Your task to perform on an android device: Go to privacy settings Image 0: 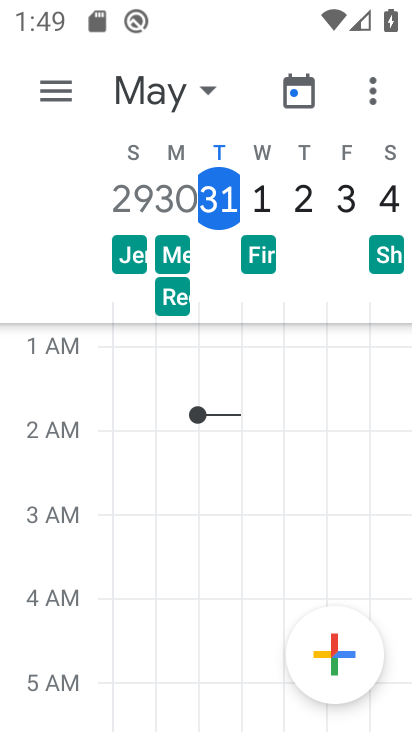
Step 0: press home button
Your task to perform on an android device: Go to privacy settings Image 1: 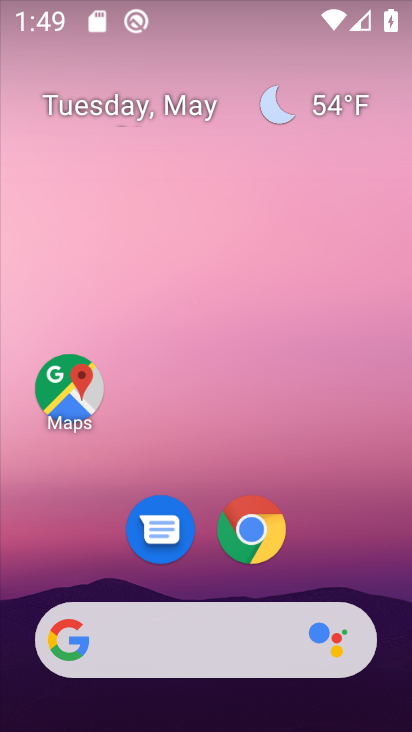
Step 1: drag from (310, 551) to (272, 246)
Your task to perform on an android device: Go to privacy settings Image 2: 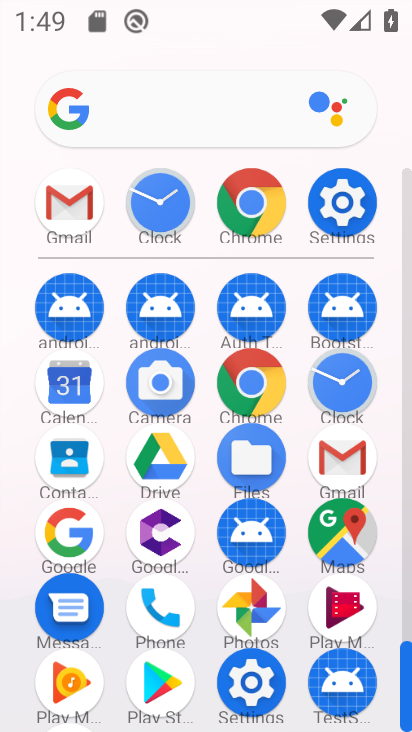
Step 2: click (334, 199)
Your task to perform on an android device: Go to privacy settings Image 3: 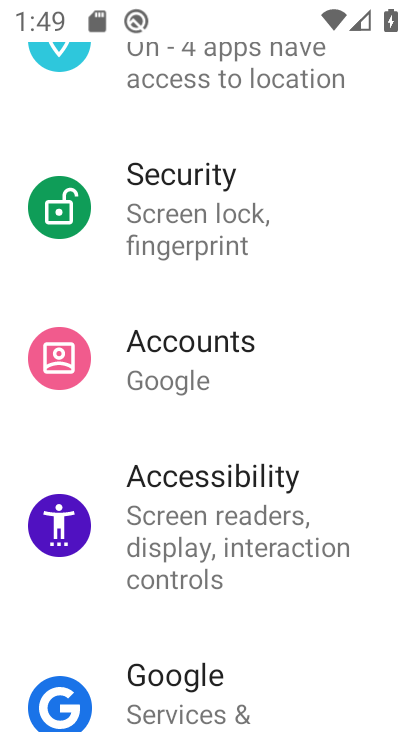
Step 3: drag from (191, 211) to (269, 597)
Your task to perform on an android device: Go to privacy settings Image 4: 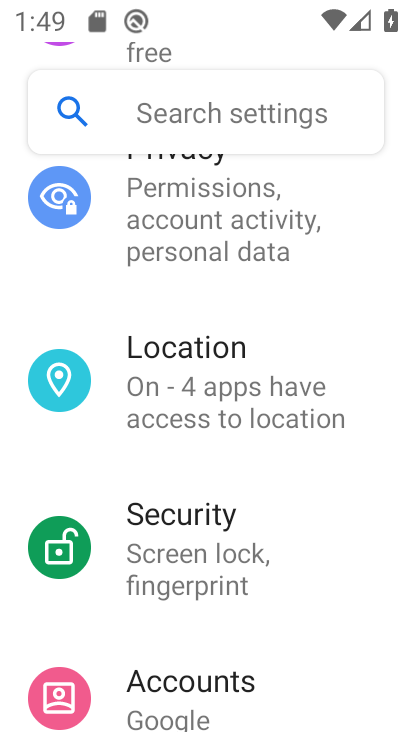
Step 4: drag from (228, 248) to (229, 491)
Your task to perform on an android device: Go to privacy settings Image 5: 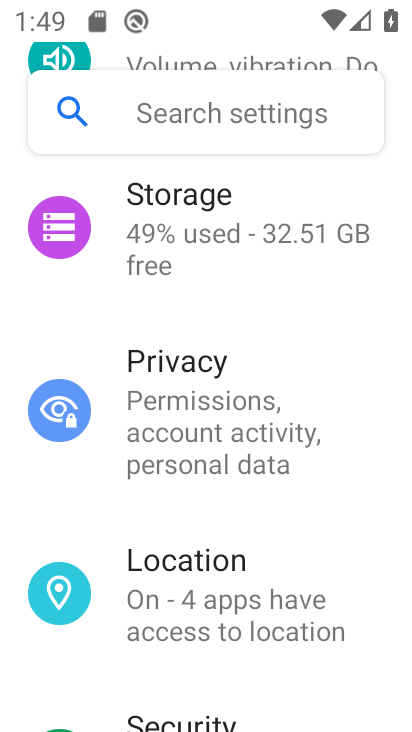
Step 5: click (221, 380)
Your task to perform on an android device: Go to privacy settings Image 6: 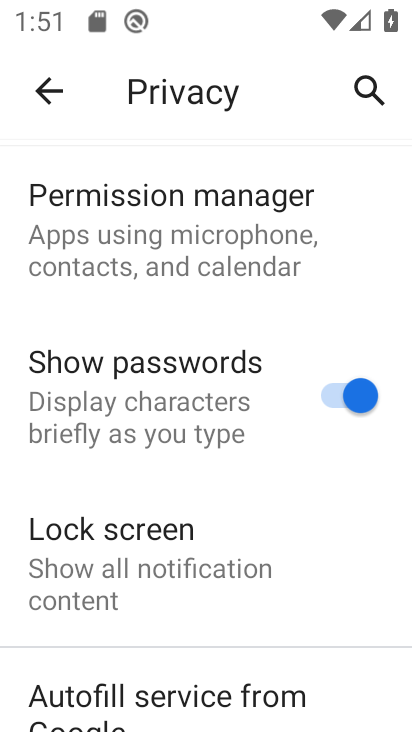
Step 6: task complete